Your task to perform on an android device: toggle show notifications on the lock screen Image 0: 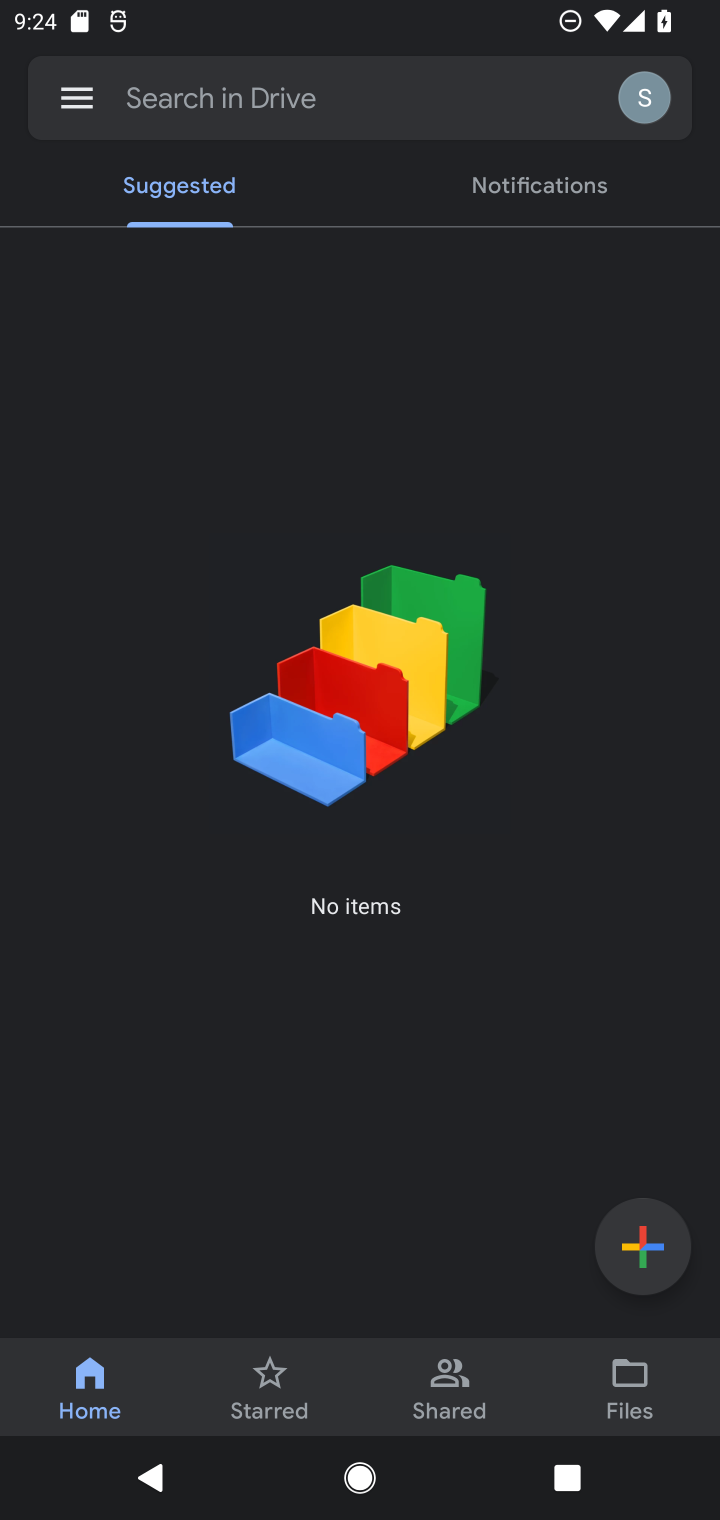
Step 0: press home button
Your task to perform on an android device: toggle show notifications on the lock screen Image 1: 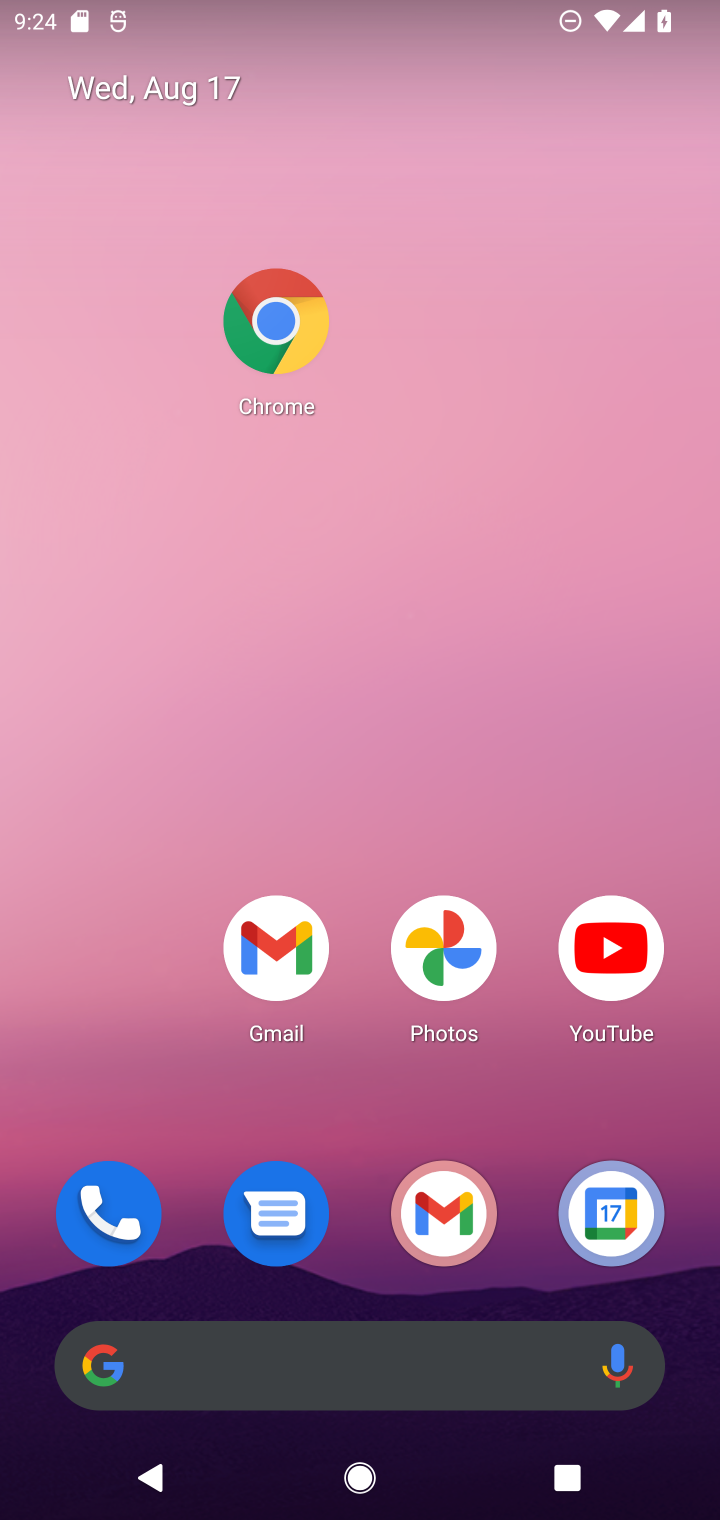
Step 1: drag from (326, 1278) to (387, 240)
Your task to perform on an android device: toggle show notifications on the lock screen Image 2: 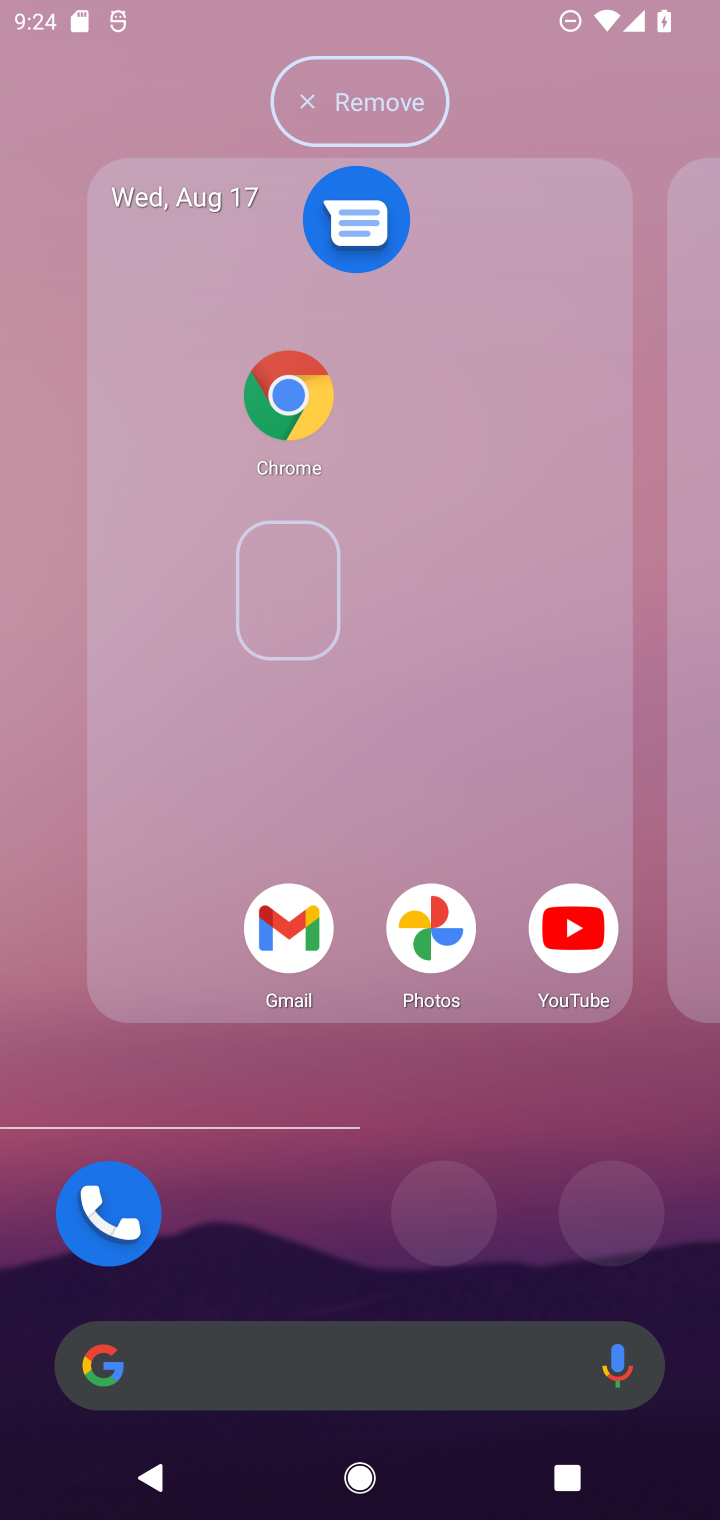
Step 2: click (387, 240)
Your task to perform on an android device: toggle show notifications on the lock screen Image 3: 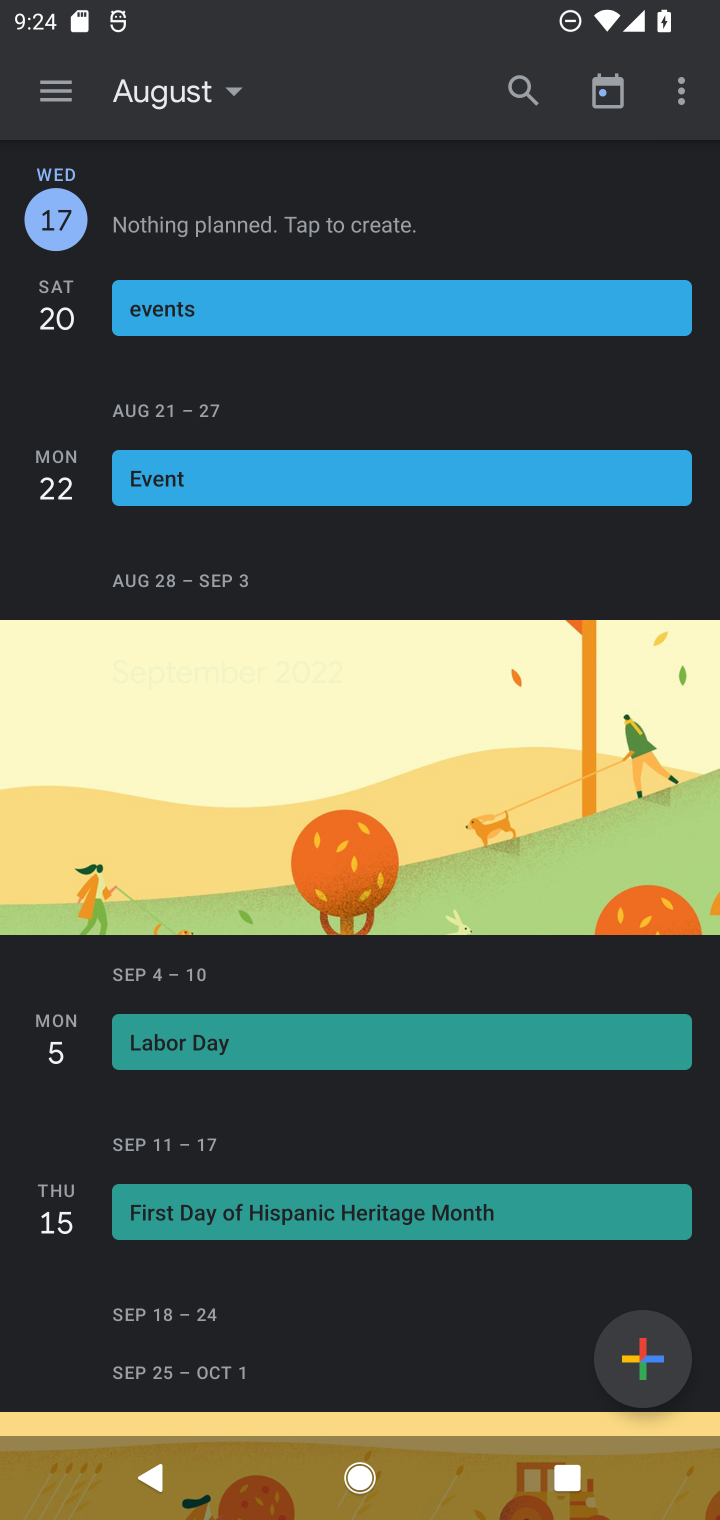
Step 3: press home button
Your task to perform on an android device: toggle show notifications on the lock screen Image 4: 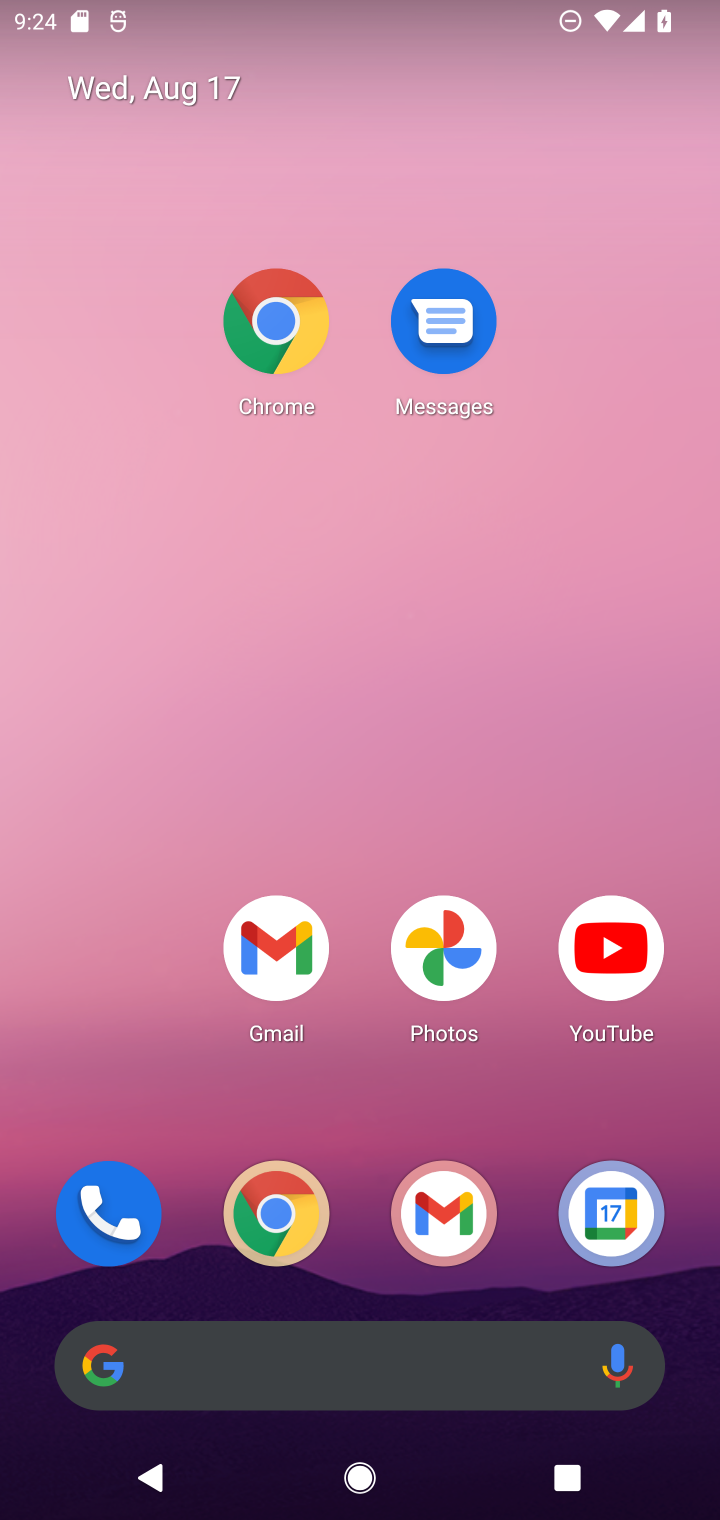
Step 4: drag from (376, 1311) to (465, 193)
Your task to perform on an android device: toggle show notifications on the lock screen Image 5: 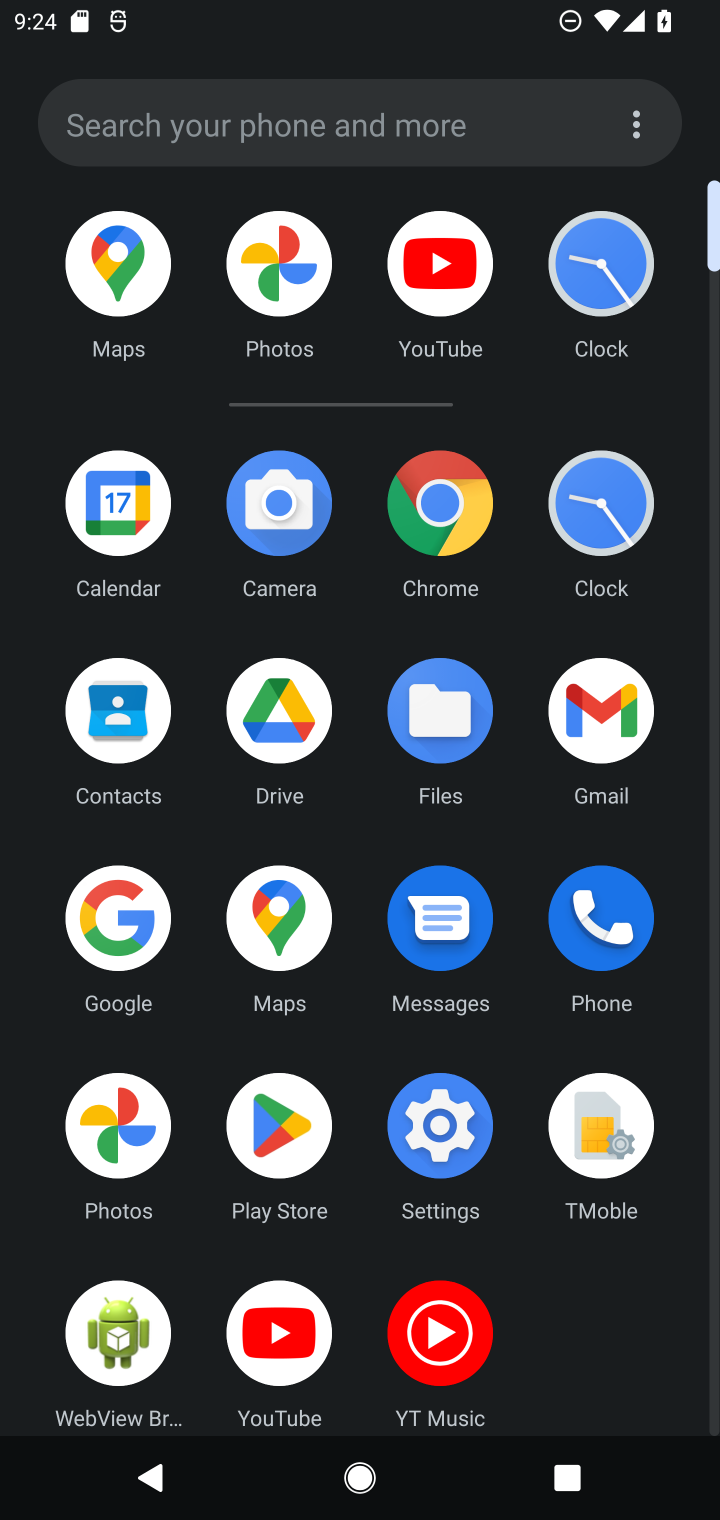
Step 5: click (453, 1130)
Your task to perform on an android device: toggle show notifications on the lock screen Image 6: 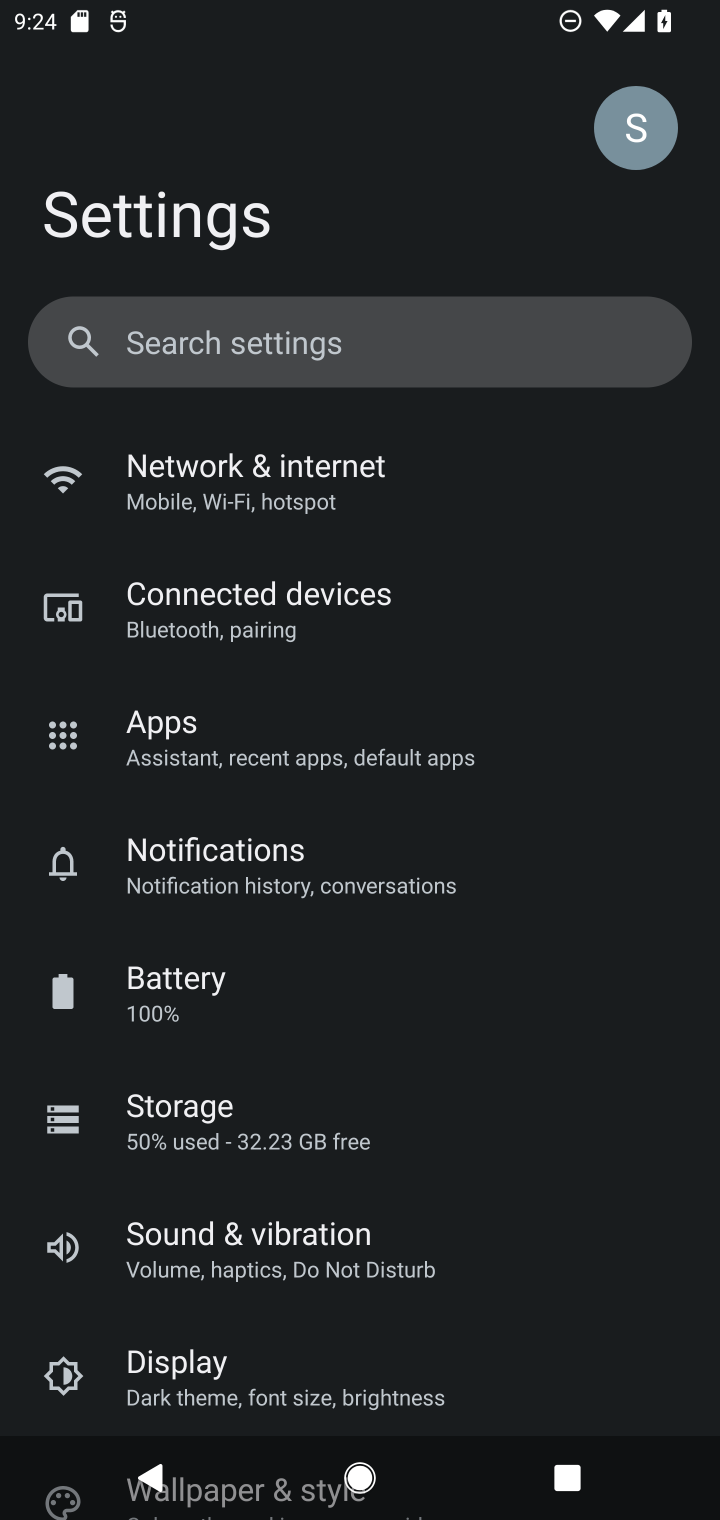
Step 6: drag from (371, 1282) to (370, 822)
Your task to perform on an android device: toggle show notifications on the lock screen Image 7: 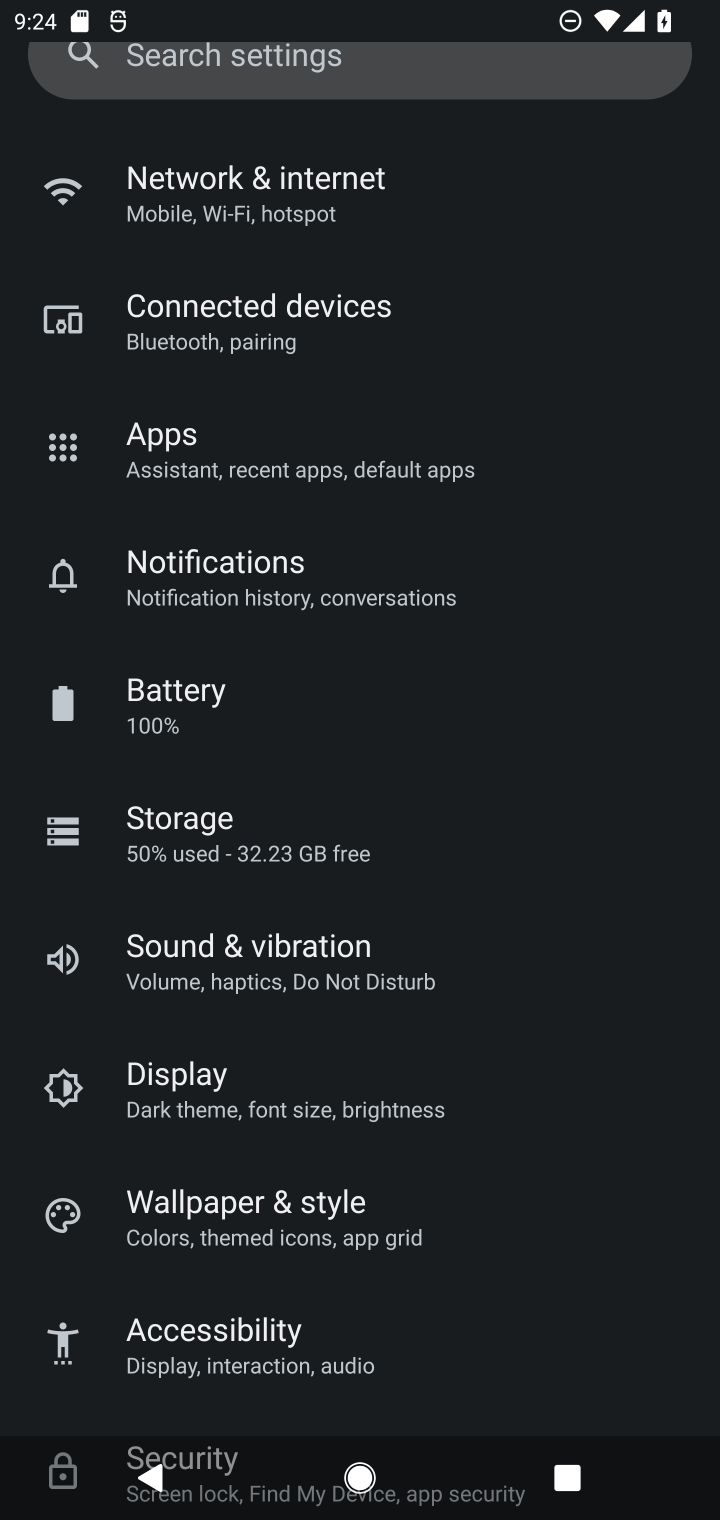
Step 7: click (288, 554)
Your task to perform on an android device: toggle show notifications on the lock screen Image 8: 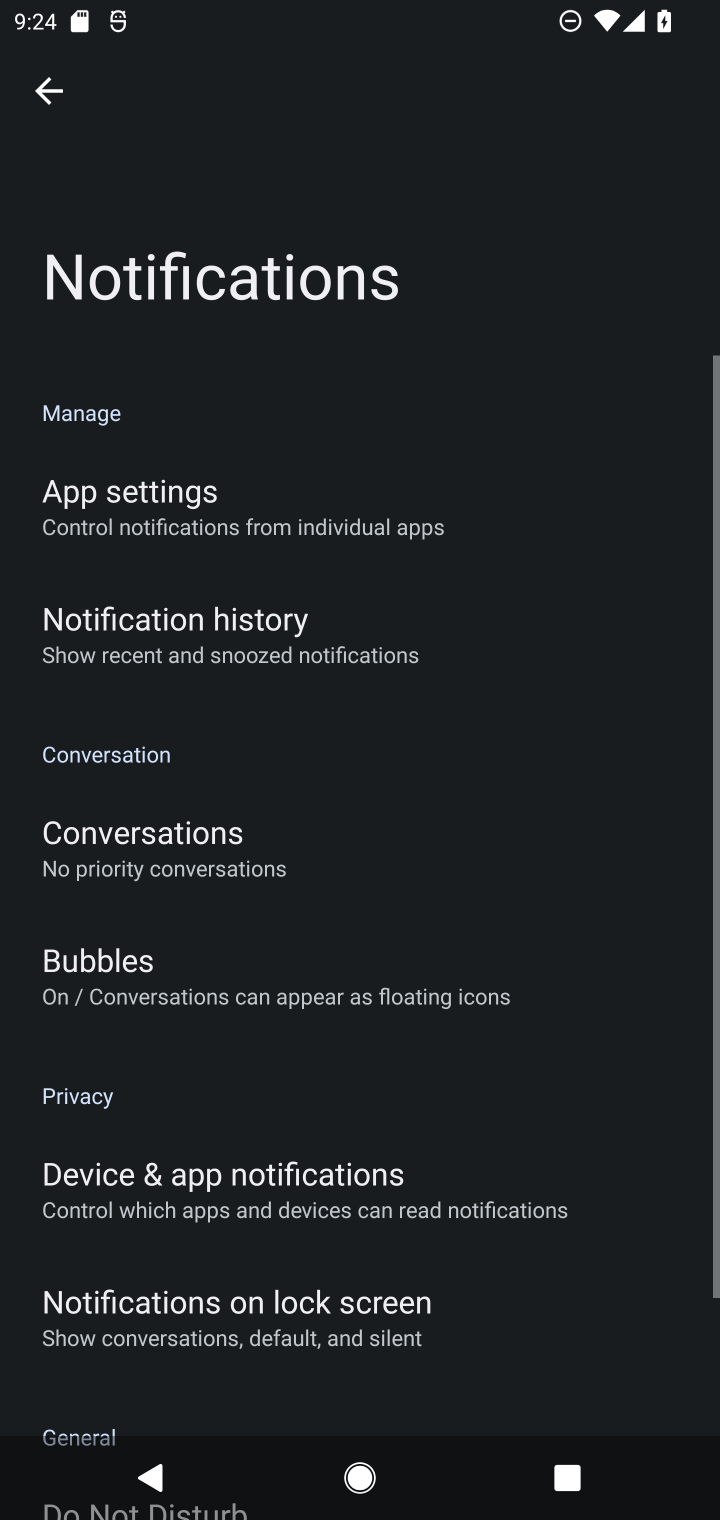
Step 8: click (288, 554)
Your task to perform on an android device: toggle show notifications on the lock screen Image 9: 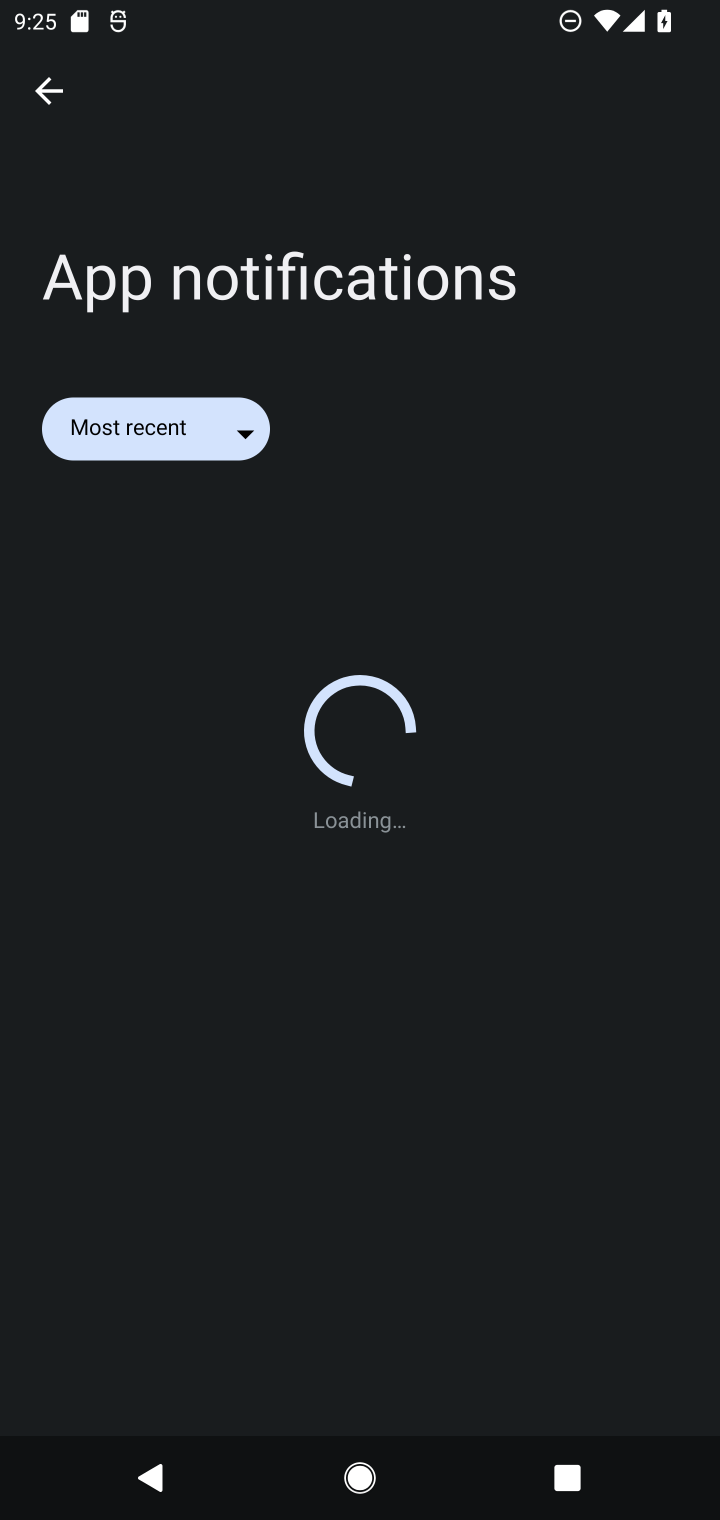
Step 9: click (35, 90)
Your task to perform on an android device: toggle show notifications on the lock screen Image 10: 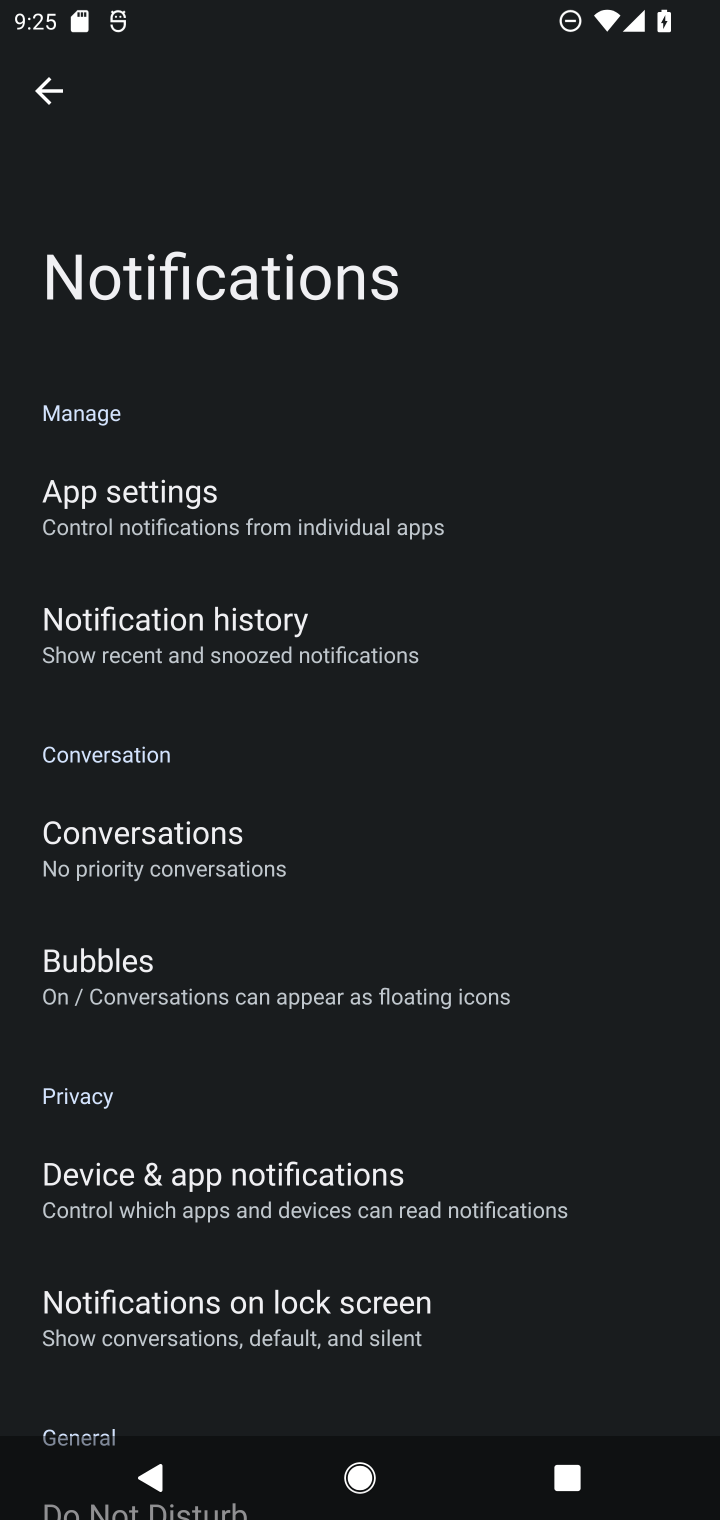
Step 10: click (35, 90)
Your task to perform on an android device: toggle show notifications on the lock screen Image 11: 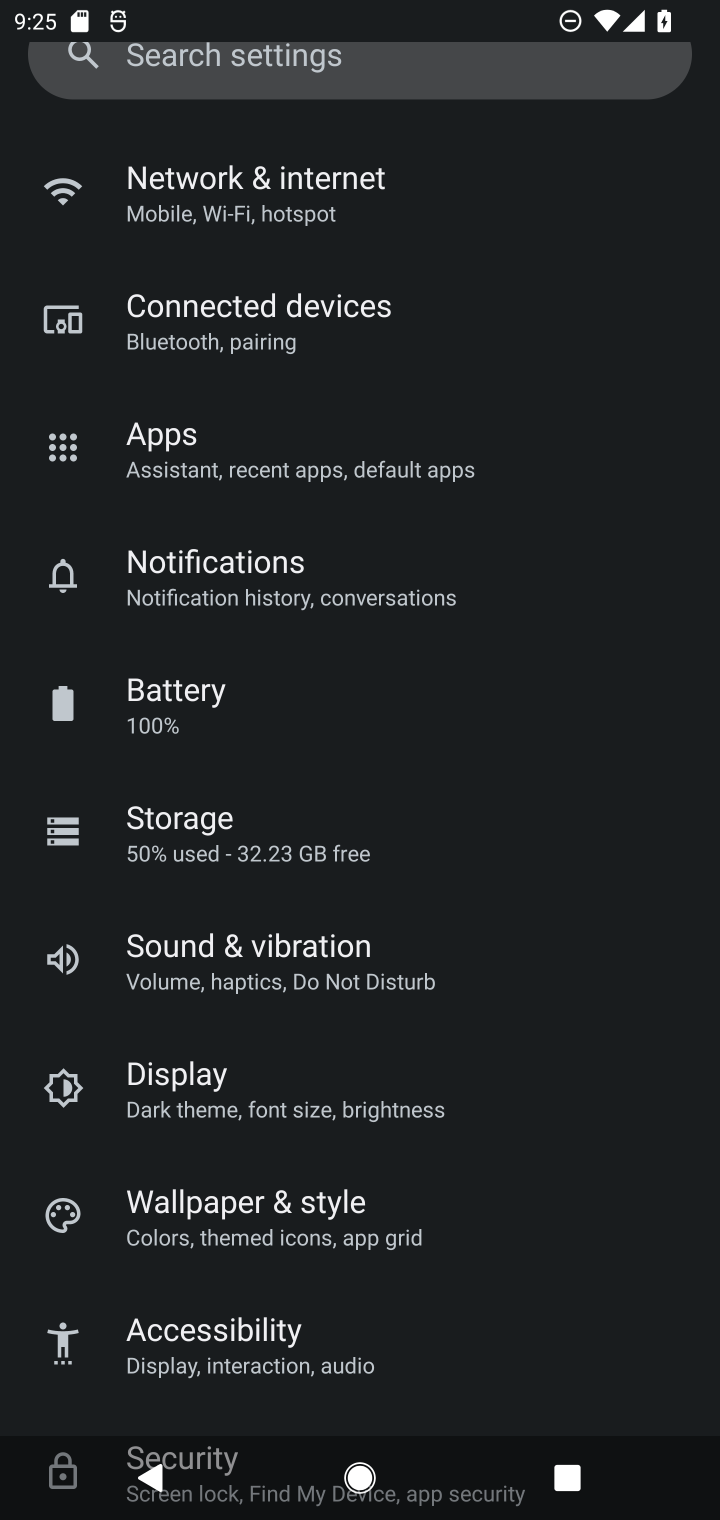
Step 11: click (282, 558)
Your task to perform on an android device: toggle show notifications on the lock screen Image 12: 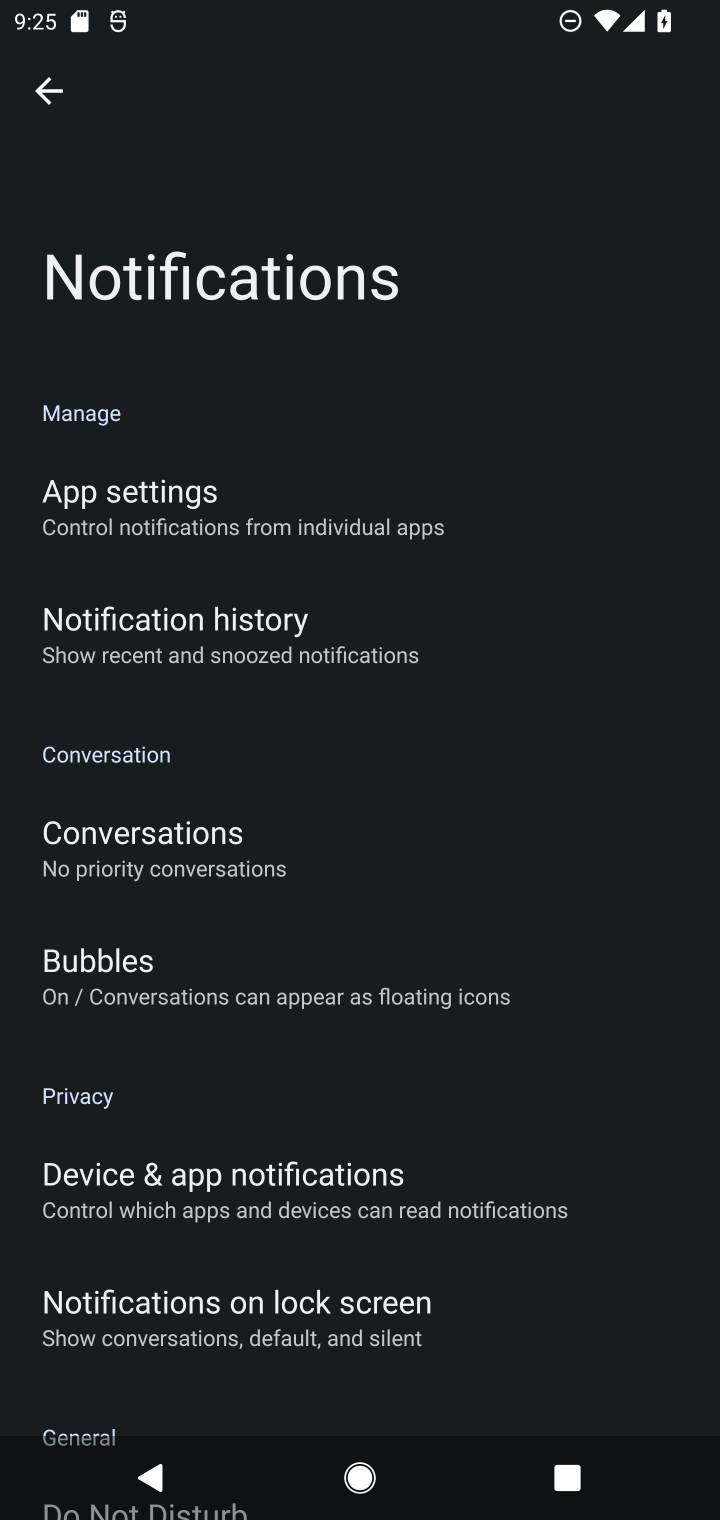
Step 12: click (309, 621)
Your task to perform on an android device: toggle show notifications on the lock screen Image 13: 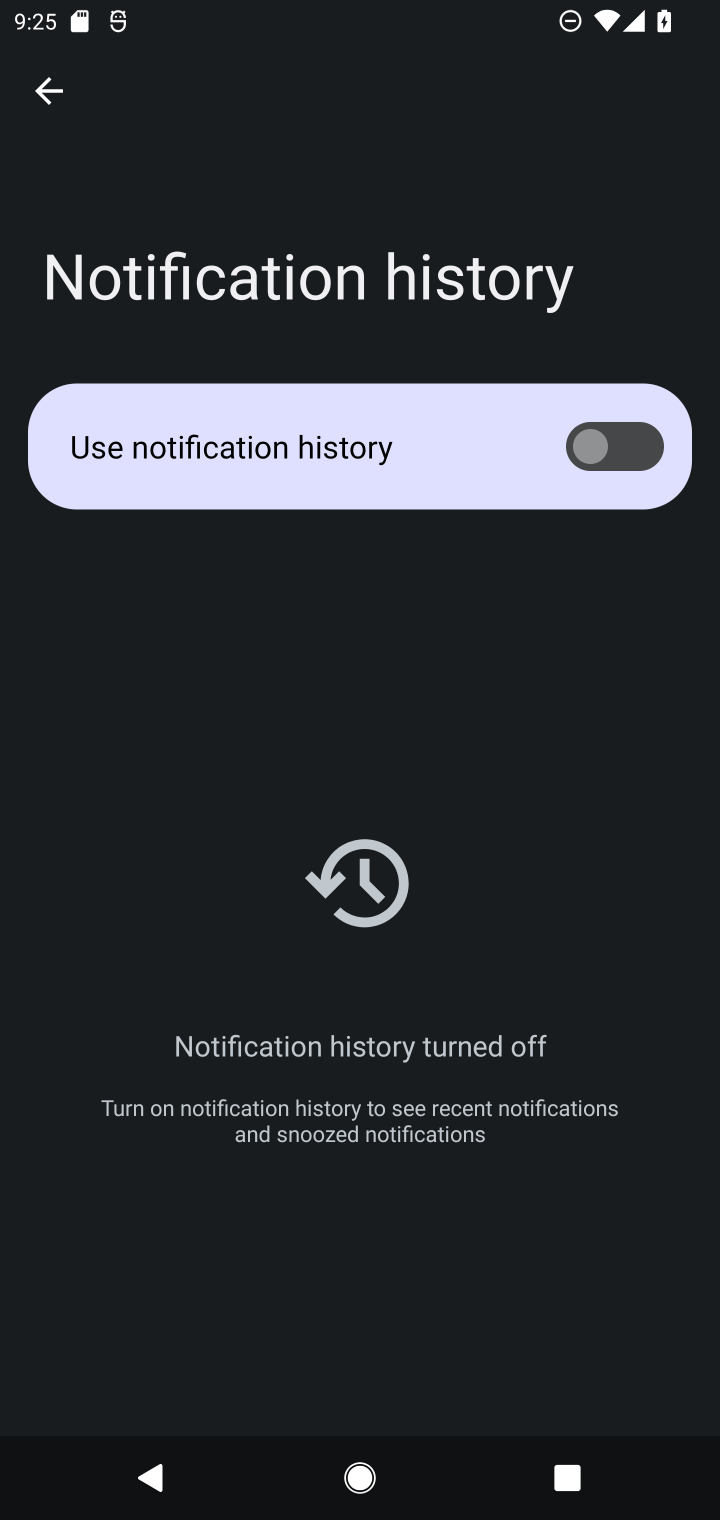
Step 13: task complete